Your task to perform on an android device: change the clock display to show seconds Image 0: 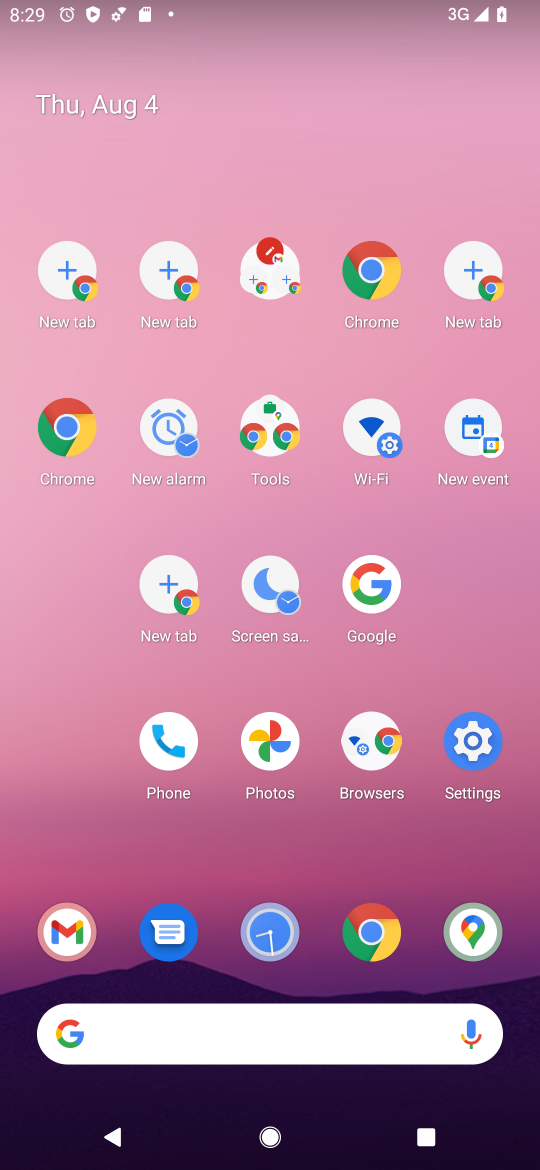
Step 0: drag from (318, 600) to (432, 345)
Your task to perform on an android device: change the clock display to show seconds Image 1: 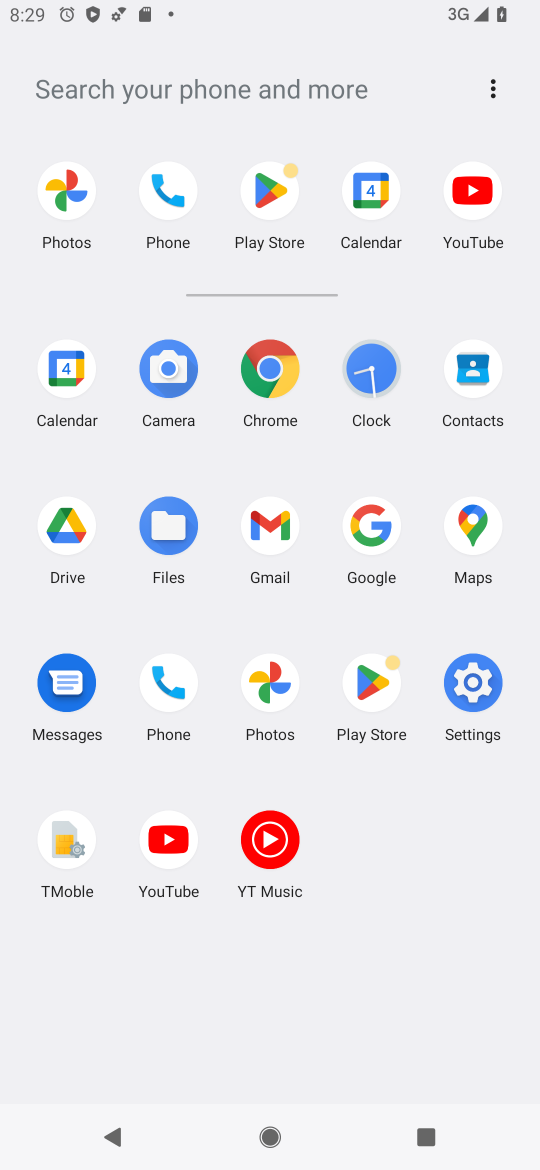
Step 1: click (377, 364)
Your task to perform on an android device: change the clock display to show seconds Image 2: 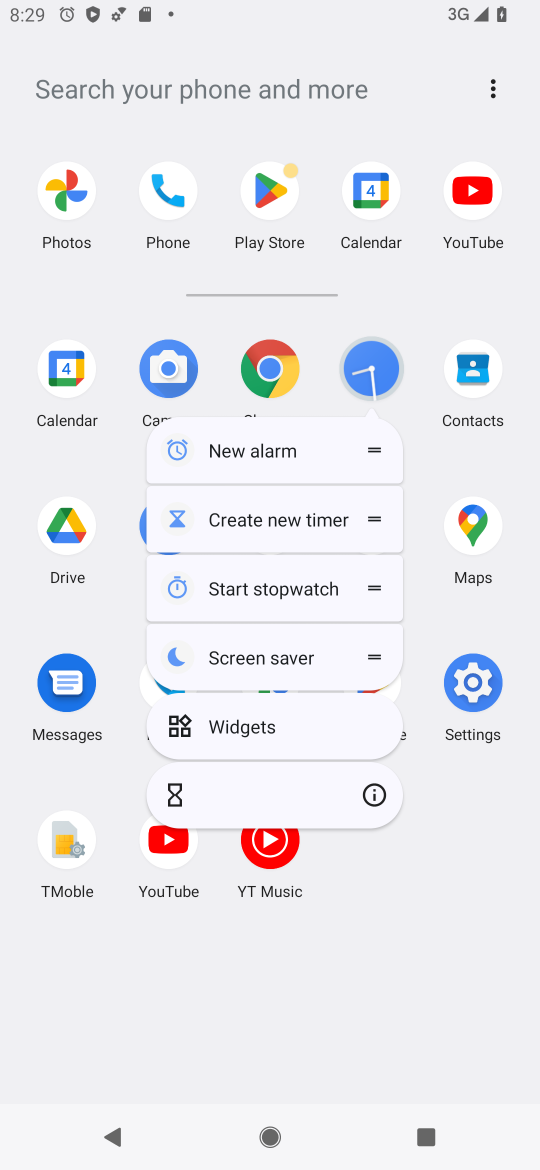
Step 2: click (379, 369)
Your task to perform on an android device: change the clock display to show seconds Image 3: 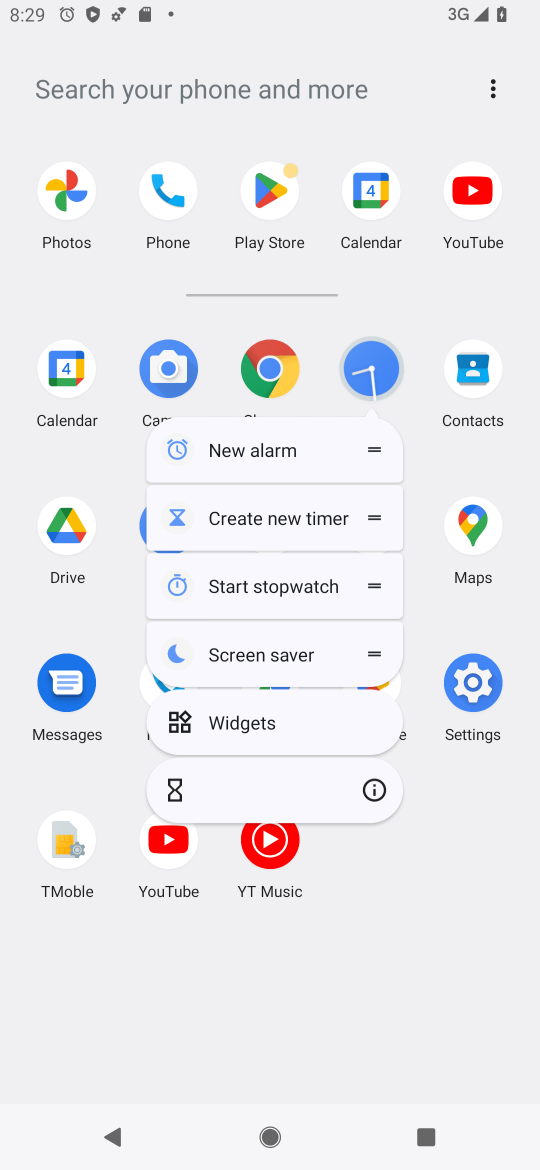
Step 3: click (247, 436)
Your task to perform on an android device: change the clock display to show seconds Image 4: 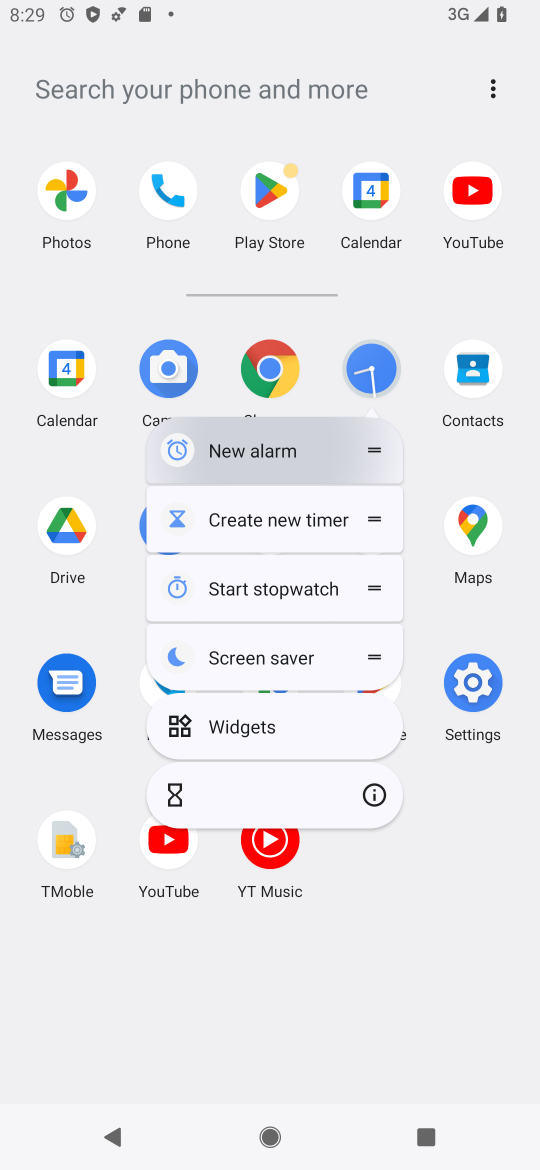
Step 4: click (272, 425)
Your task to perform on an android device: change the clock display to show seconds Image 5: 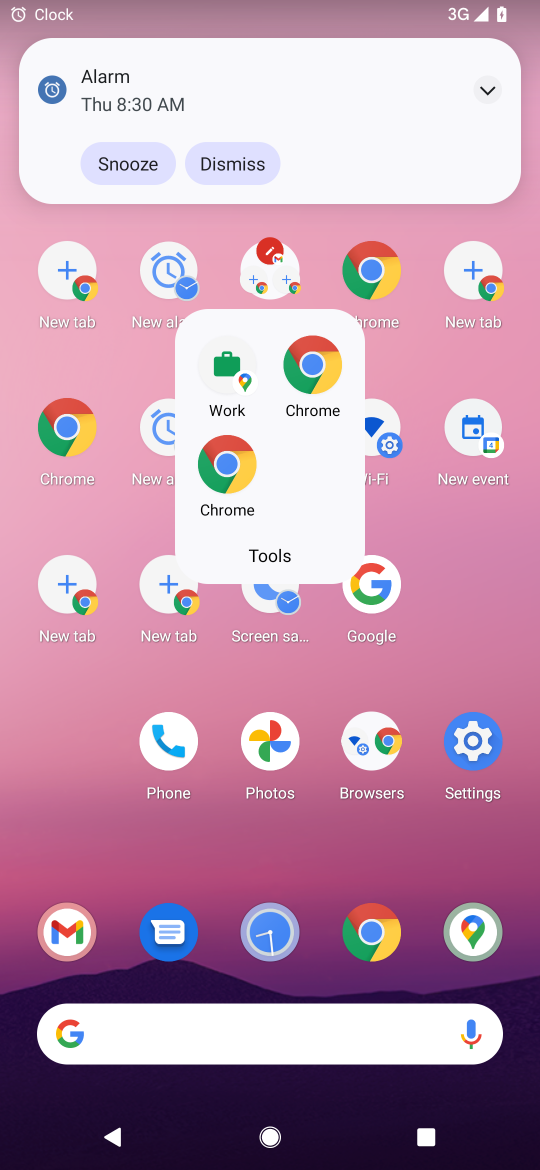
Step 5: task complete